Your task to perform on an android device: change the clock display to analog Image 0: 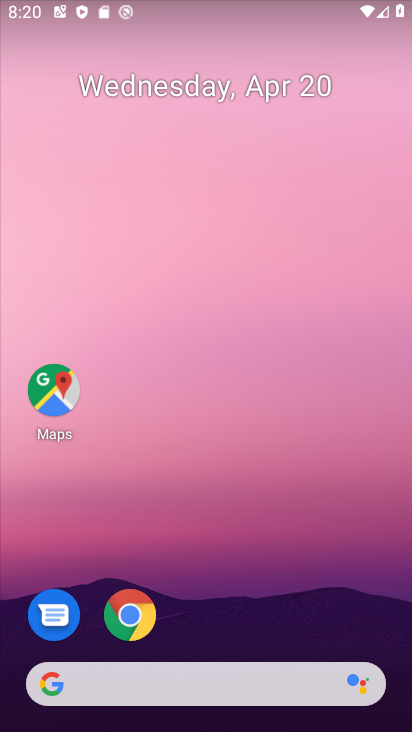
Step 0: drag from (231, 583) to (347, 133)
Your task to perform on an android device: change the clock display to analog Image 1: 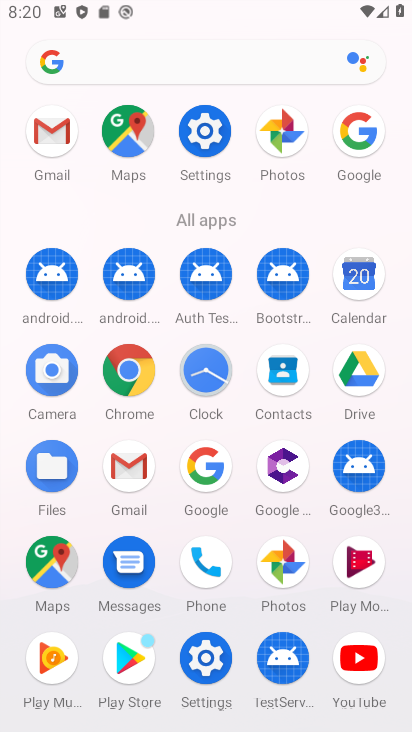
Step 1: click (208, 370)
Your task to perform on an android device: change the clock display to analog Image 2: 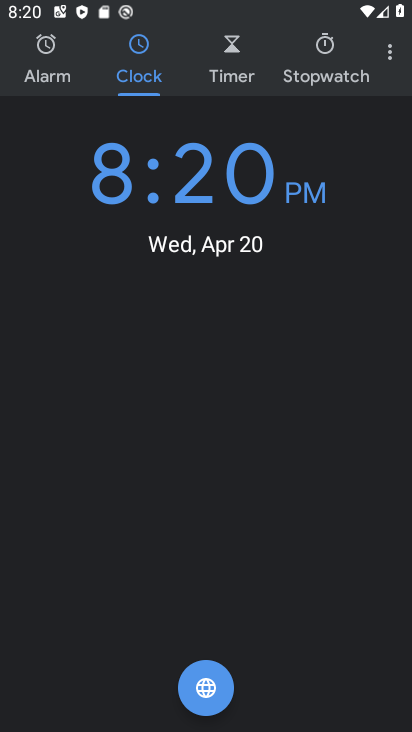
Step 2: click (391, 55)
Your task to perform on an android device: change the clock display to analog Image 3: 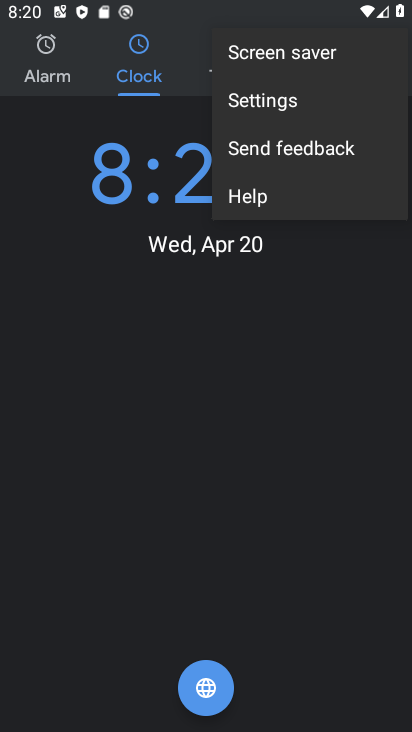
Step 3: click (290, 105)
Your task to perform on an android device: change the clock display to analog Image 4: 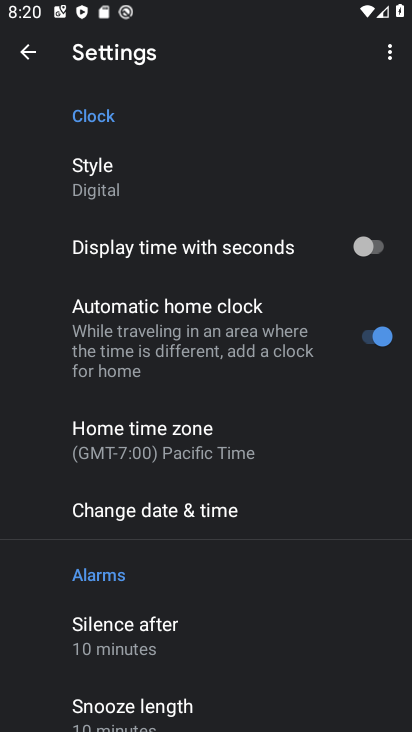
Step 4: click (119, 183)
Your task to perform on an android device: change the clock display to analog Image 5: 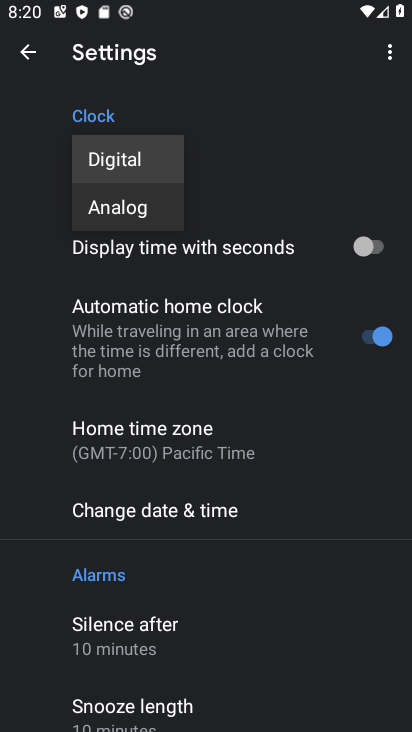
Step 5: click (121, 206)
Your task to perform on an android device: change the clock display to analog Image 6: 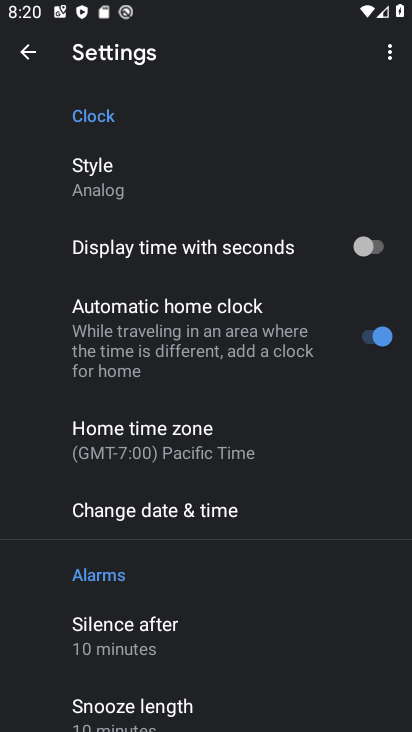
Step 6: task complete